Your task to perform on an android device: see creations saved in the google photos Image 0: 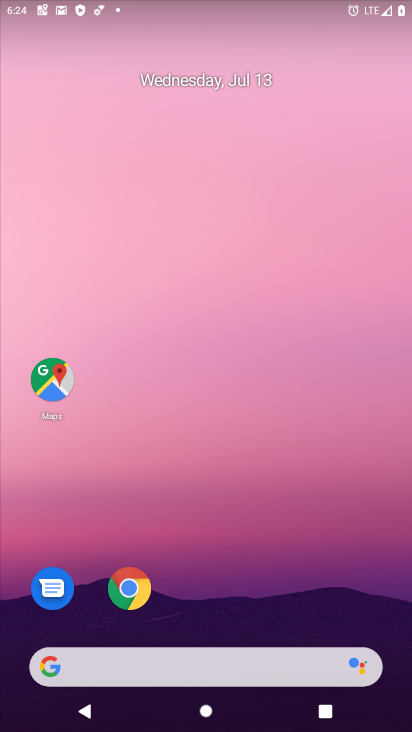
Step 0: drag from (212, 386) to (211, 117)
Your task to perform on an android device: see creations saved in the google photos Image 1: 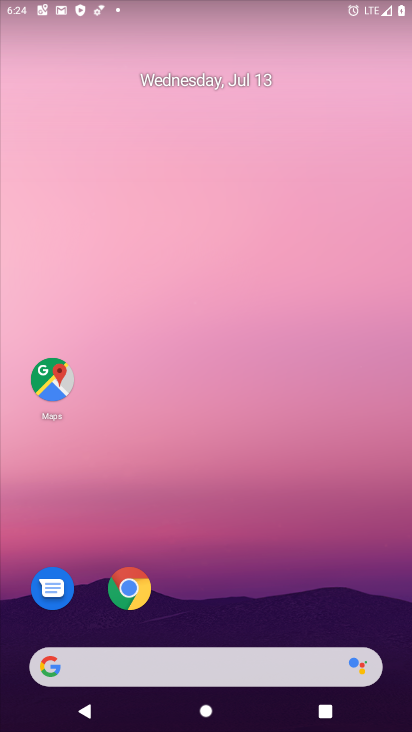
Step 1: drag from (214, 373) to (245, 139)
Your task to perform on an android device: see creations saved in the google photos Image 2: 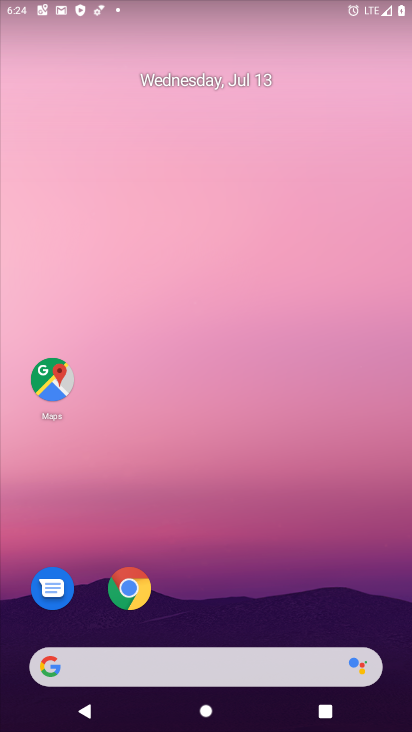
Step 2: drag from (180, 441) to (189, 121)
Your task to perform on an android device: see creations saved in the google photos Image 3: 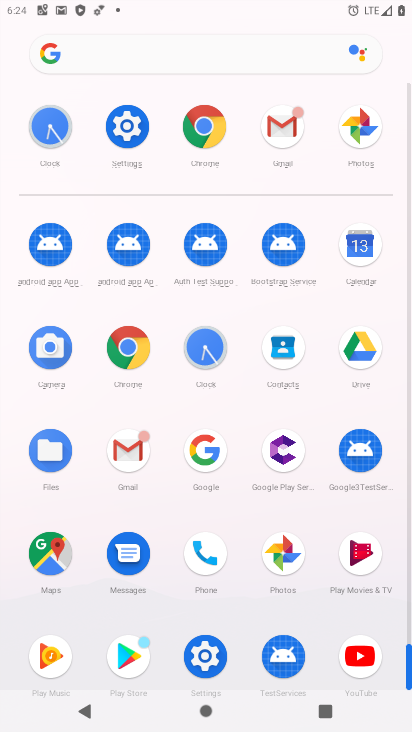
Step 3: click (277, 553)
Your task to perform on an android device: see creations saved in the google photos Image 4: 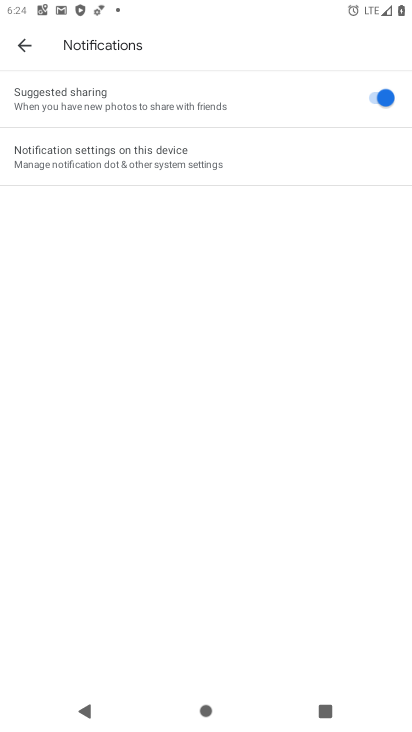
Step 4: click (30, 41)
Your task to perform on an android device: see creations saved in the google photos Image 5: 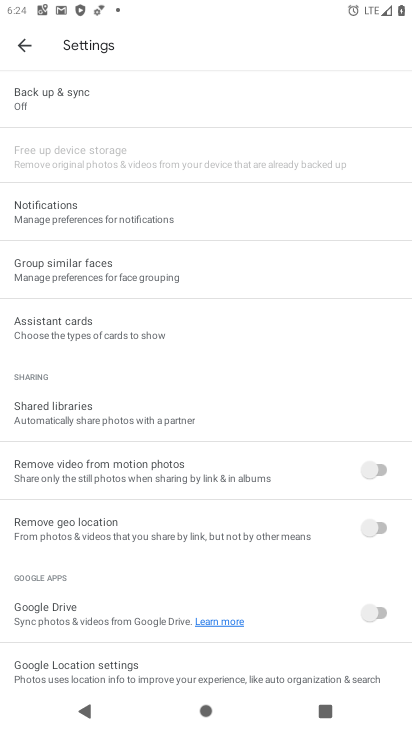
Step 5: click (30, 41)
Your task to perform on an android device: see creations saved in the google photos Image 6: 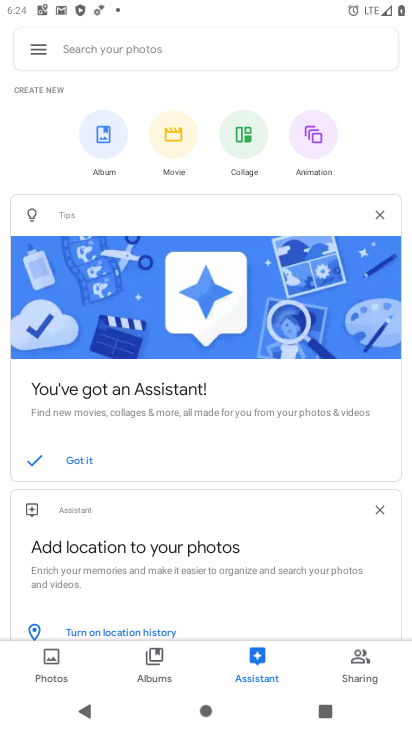
Step 6: click (126, 40)
Your task to perform on an android device: see creations saved in the google photos Image 7: 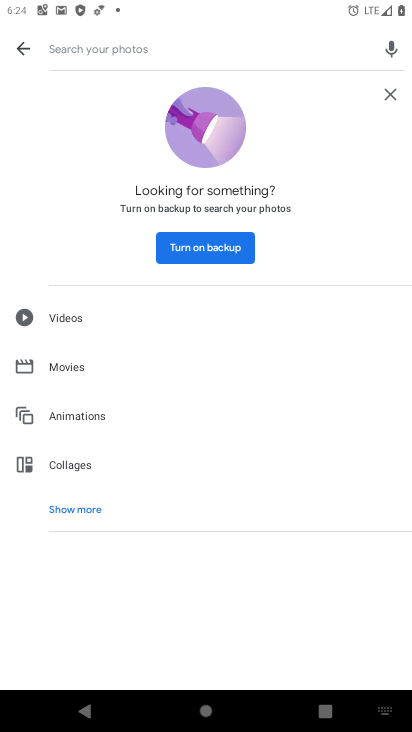
Step 7: click (74, 512)
Your task to perform on an android device: see creations saved in the google photos Image 8: 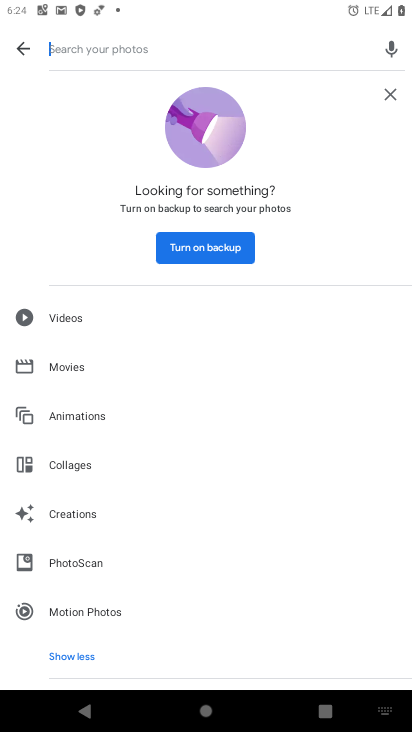
Step 8: click (74, 512)
Your task to perform on an android device: see creations saved in the google photos Image 9: 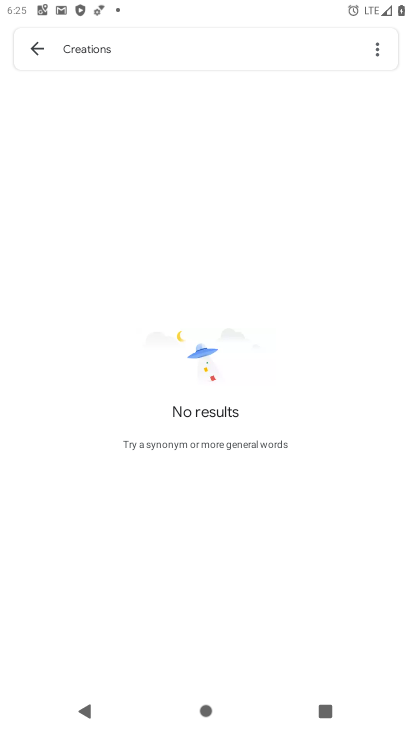
Step 9: task complete